Your task to perform on an android device: Open calendar and show me the third week of next month Image 0: 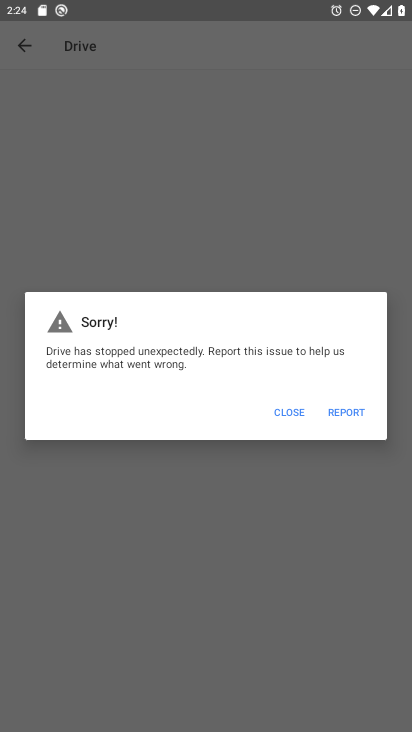
Step 0: press home button
Your task to perform on an android device: Open calendar and show me the third week of next month Image 1: 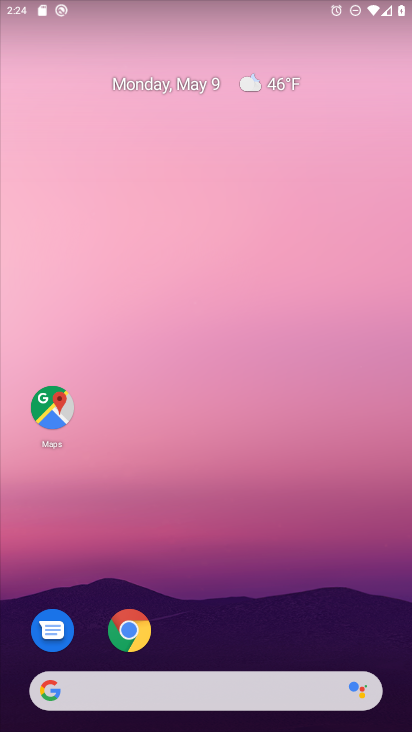
Step 1: drag from (327, 699) to (261, 238)
Your task to perform on an android device: Open calendar and show me the third week of next month Image 2: 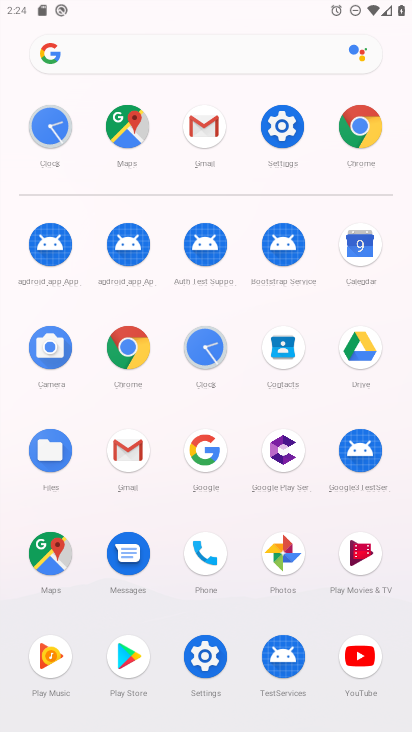
Step 2: click (353, 260)
Your task to perform on an android device: Open calendar and show me the third week of next month Image 3: 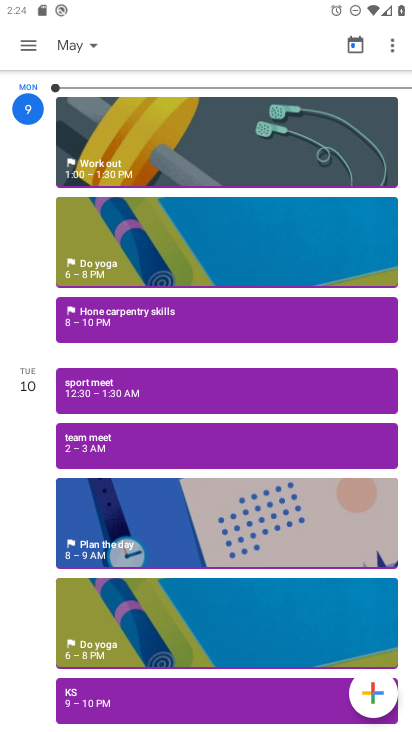
Step 3: click (34, 43)
Your task to perform on an android device: Open calendar and show me the third week of next month Image 4: 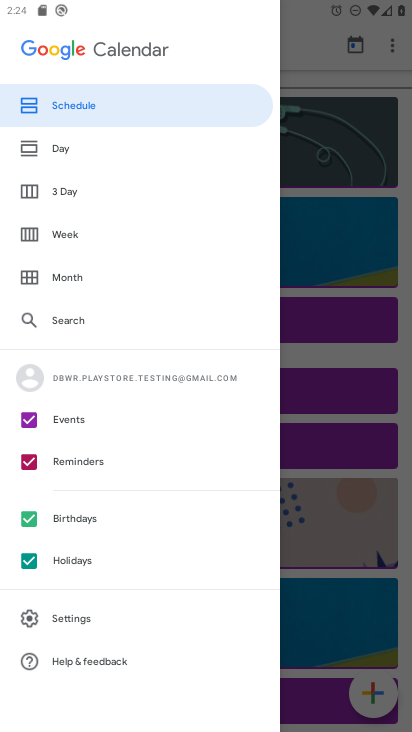
Step 4: click (67, 271)
Your task to perform on an android device: Open calendar and show me the third week of next month Image 5: 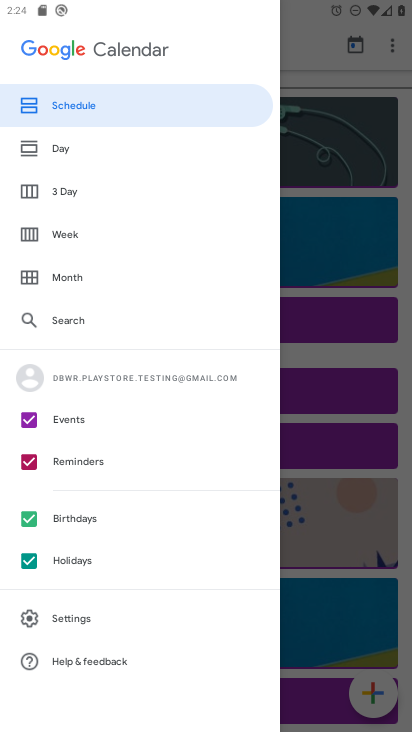
Step 5: click (62, 280)
Your task to perform on an android device: Open calendar and show me the third week of next month Image 6: 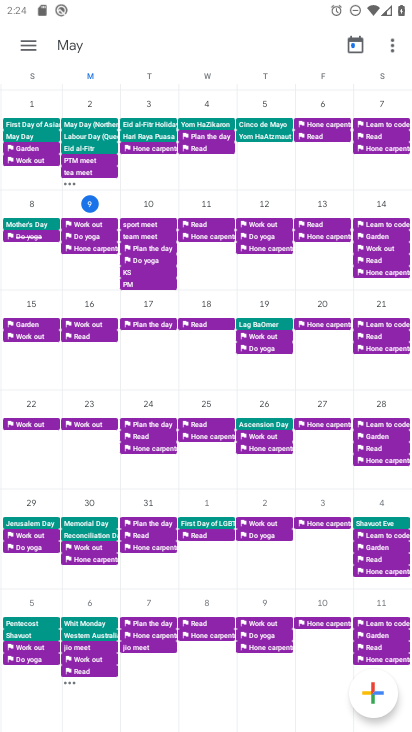
Step 6: drag from (379, 473) to (2, 555)
Your task to perform on an android device: Open calendar and show me the third week of next month Image 7: 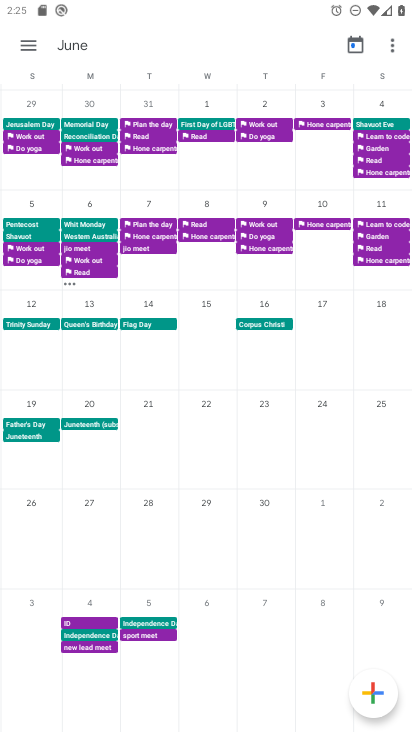
Step 7: click (89, 371)
Your task to perform on an android device: Open calendar and show me the third week of next month Image 8: 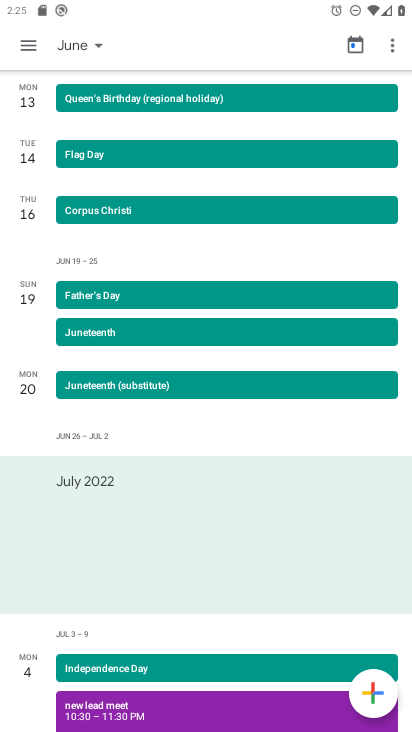
Step 8: task complete